Your task to perform on an android device: open app "ColorNote Notepad Notes" (install if not already installed) and go to login screen Image 0: 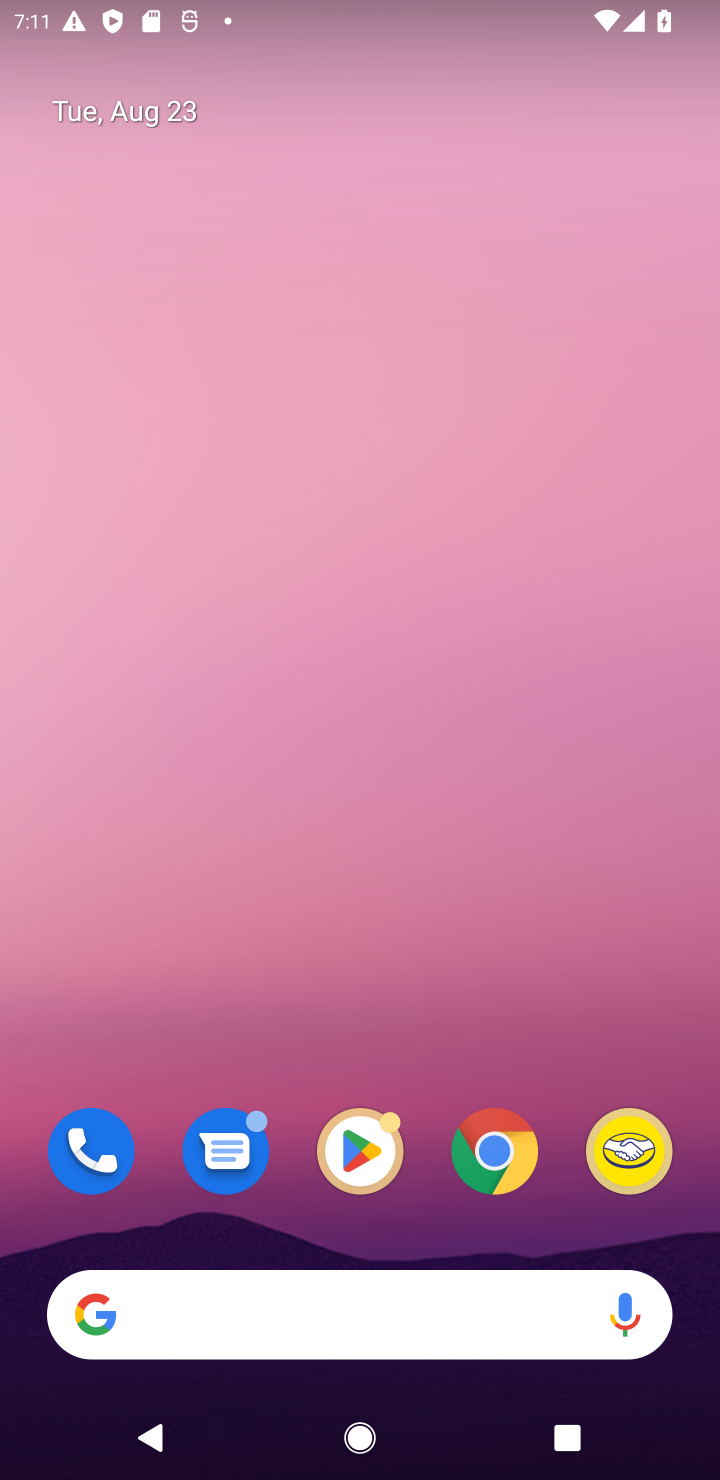
Step 0: click (349, 1144)
Your task to perform on an android device: open app "ColorNote Notepad Notes" (install if not already installed) and go to login screen Image 1: 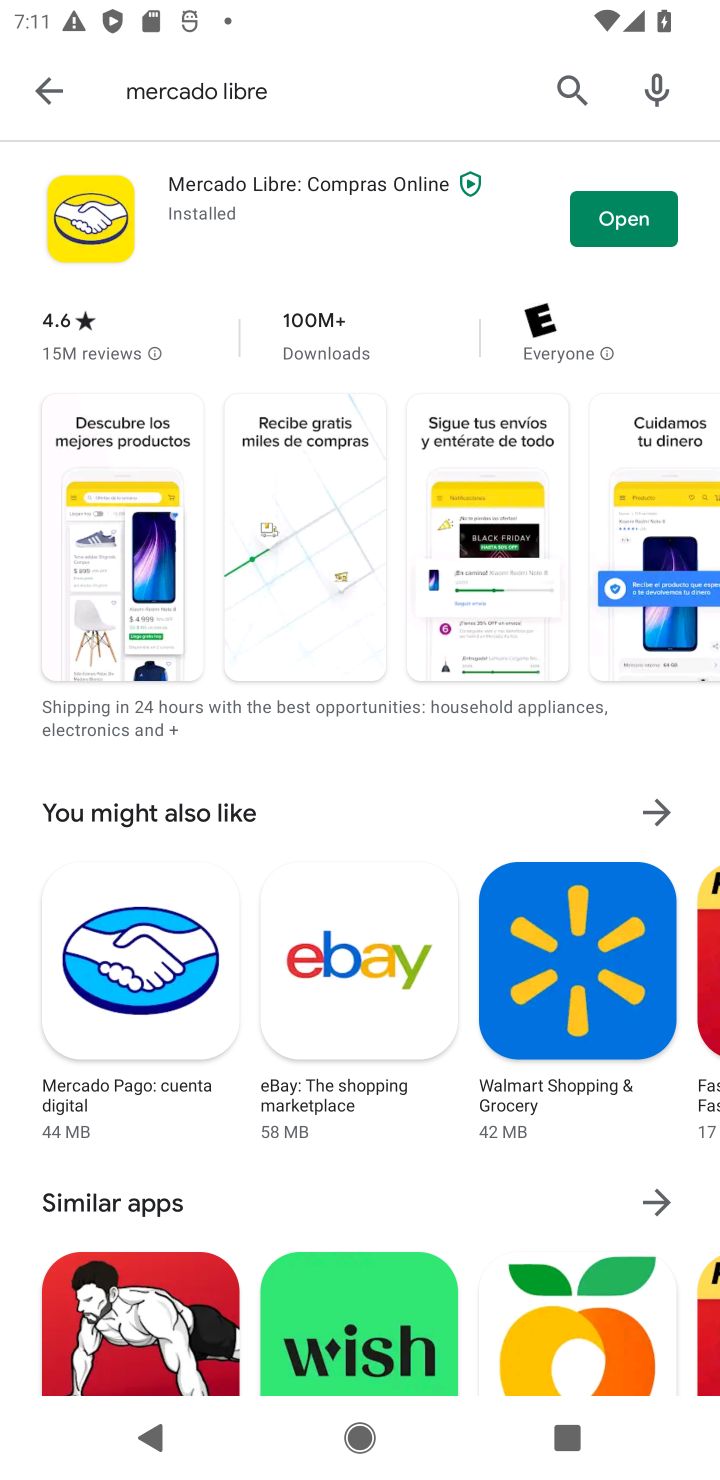
Step 1: click (575, 85)
Your task to perform on an android device: open app "ColorNote Notepad Notes" (install if not already installed) and go to login screen Image 2: 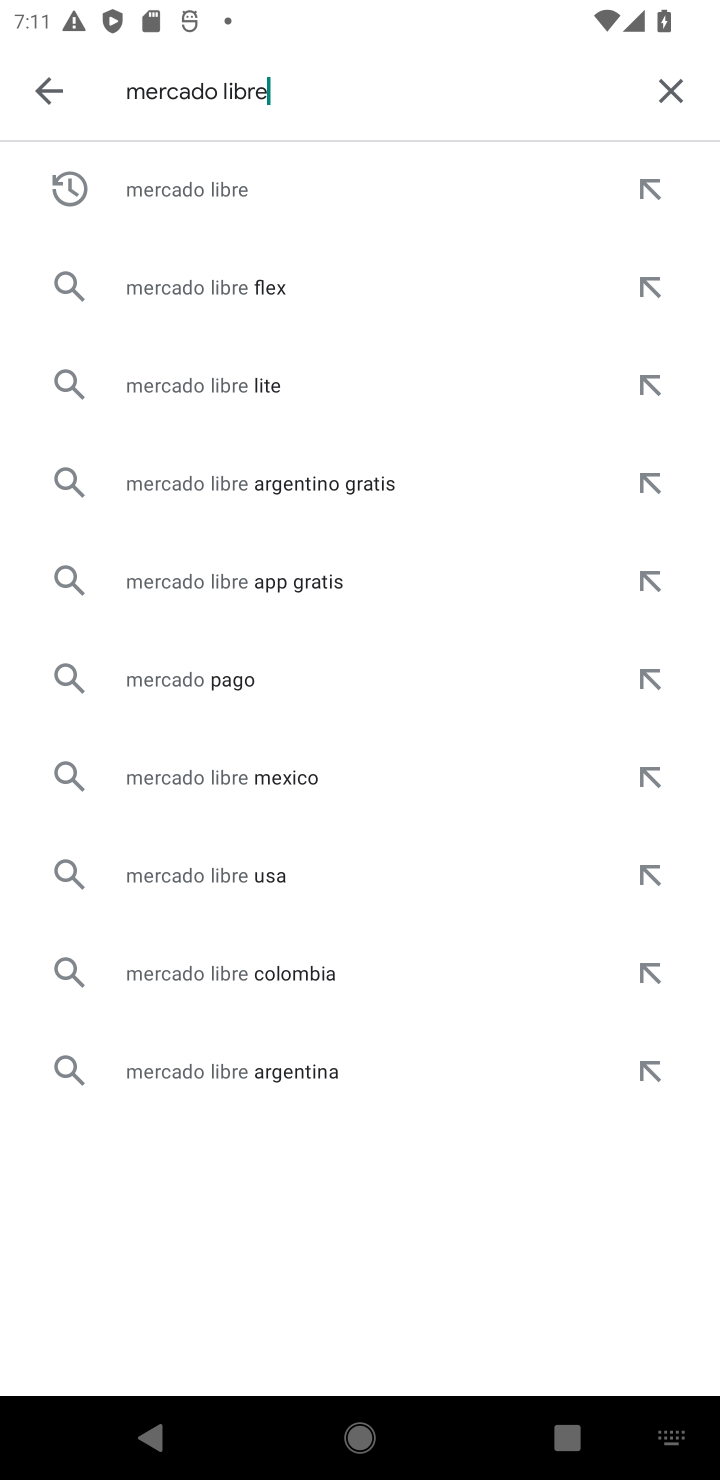
Step 2: click (661, 89)
Your task to perform on an android device: open app "ColorNote Notepad Notes" (install if not already installed) and go to login screen Image 3: 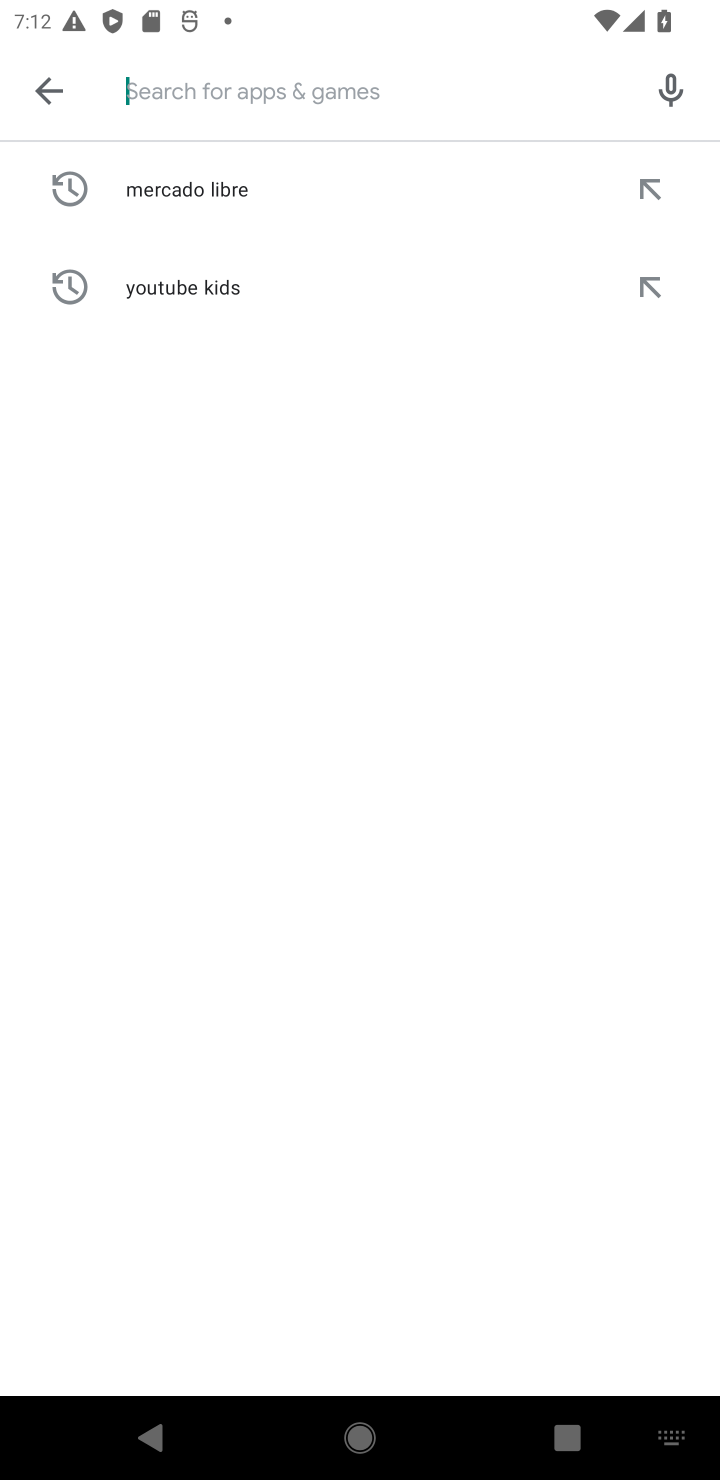
Step 3: type "ColorNote Notepad Notes"
Your task to perform on an android device: open app "ColorNote Notepad Notes" (install if not already installed) and go to login screen Image 4: 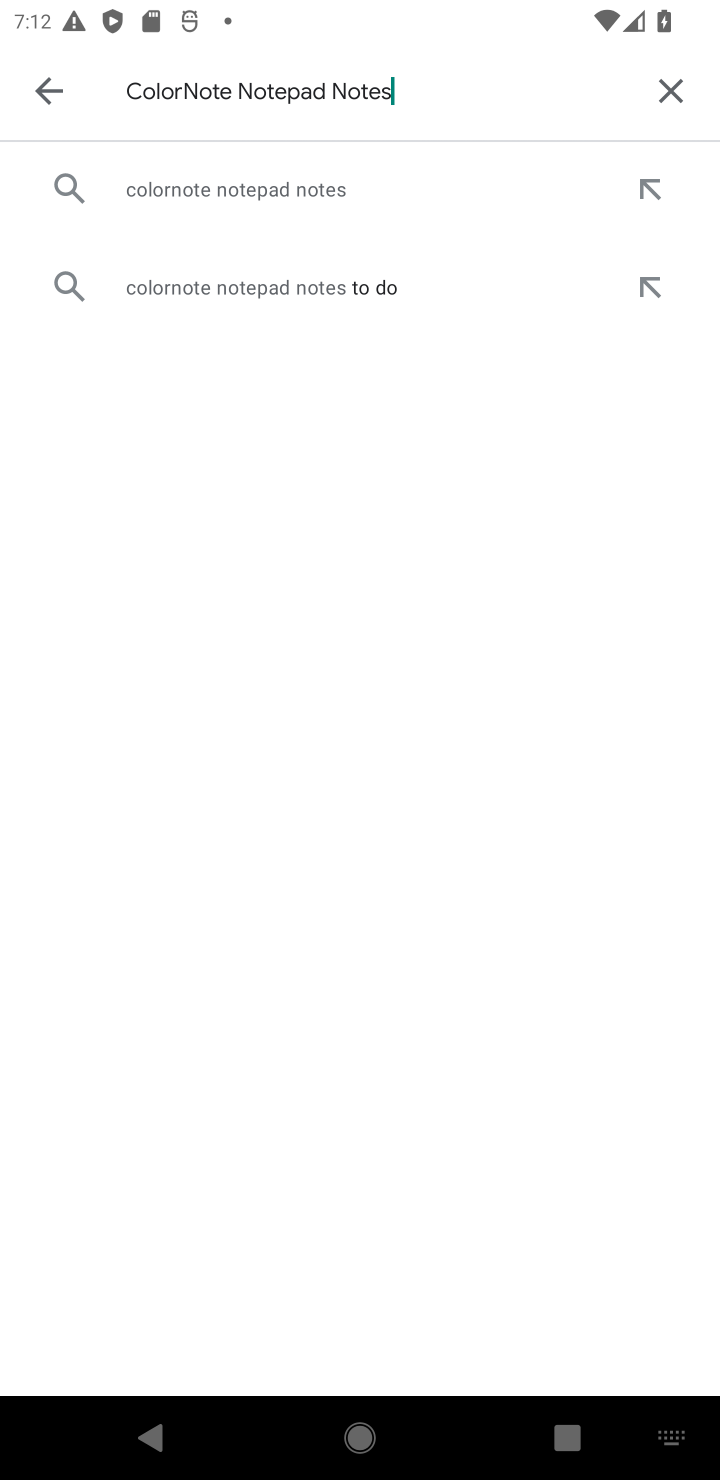
Step 4: click (232, 192)
Your task to perform on an android device: open app "ColorNote Notepad Notes" (install if not already installed) and go to login screen Image 5: 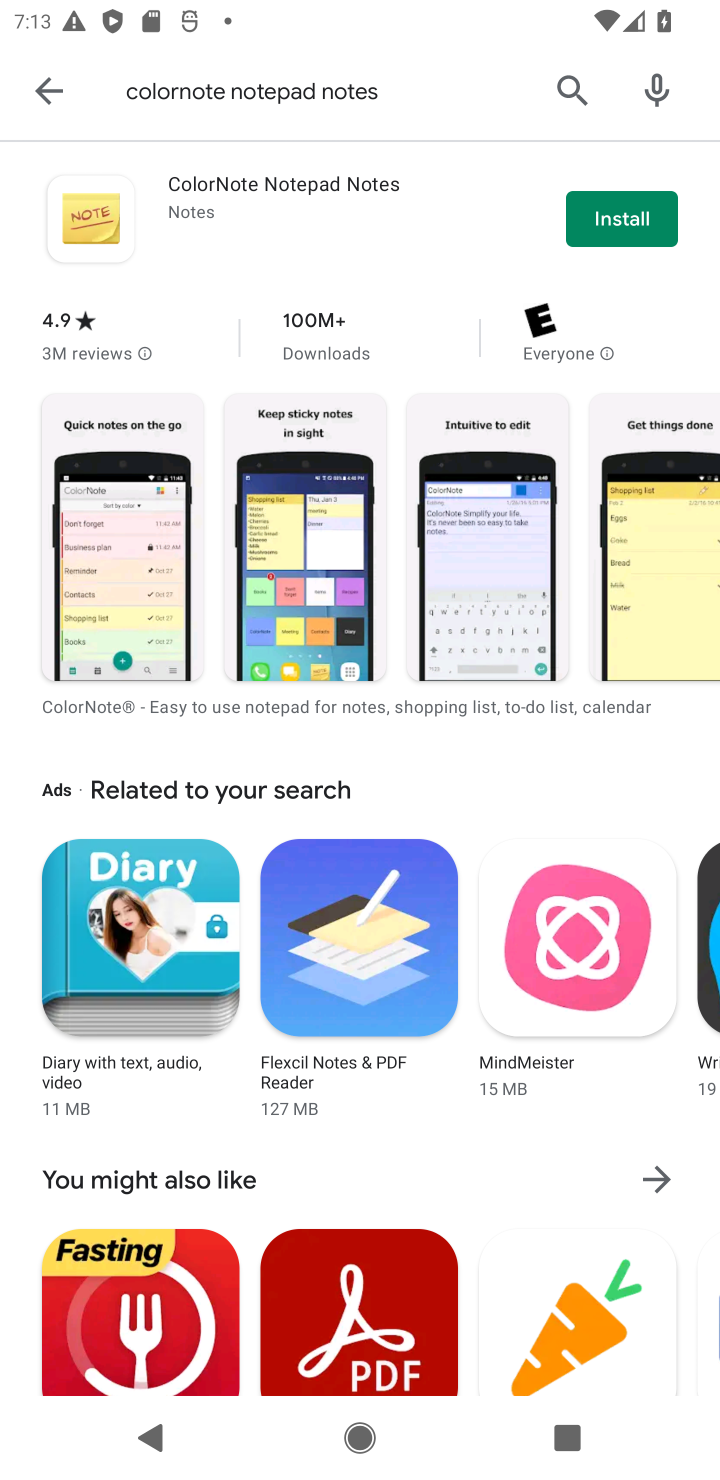
Step 5: click (626, 221)
Your task to perform on an android device: open app "ColorNote Notepad Notes" (install if not already installed) and go to login screen Image 6: 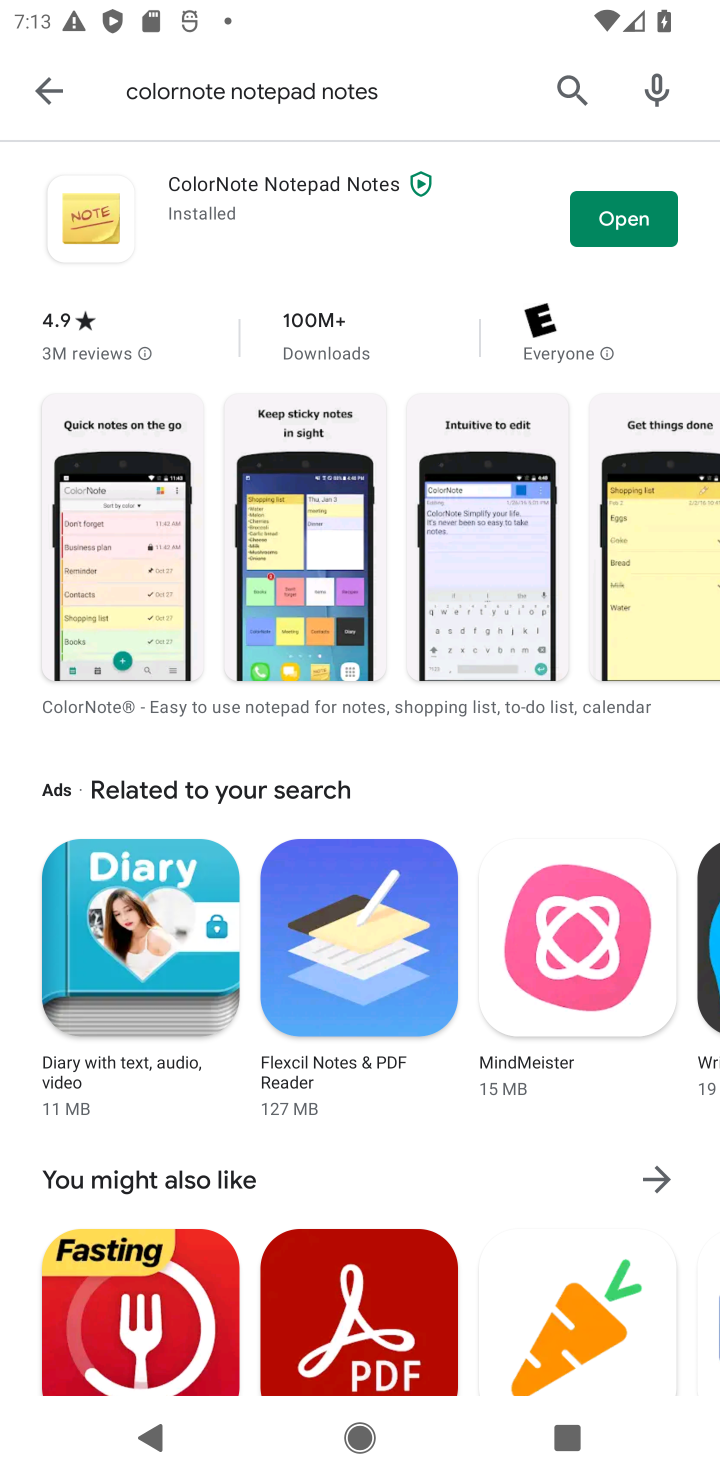
Step 6: click (625, 222)
Your task to perform on an android device: open app "ColorNote Notepad Notes" (install if not already installed) and go to login screen Image 7: 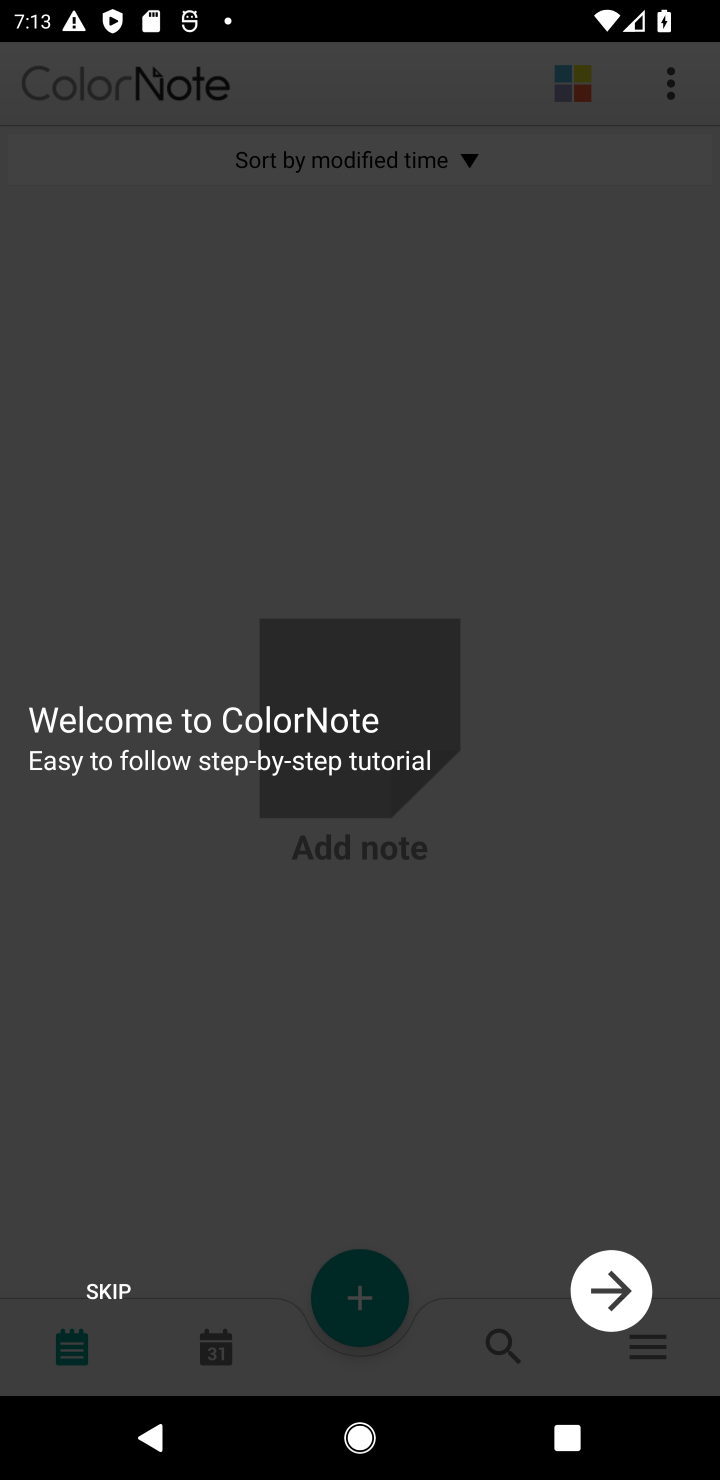
Step 7: click (91, 1297)
Your task to perform on an android device: open app "ColorNote Notepad Notes" (install if not already installed) and go to login screen Image 8: 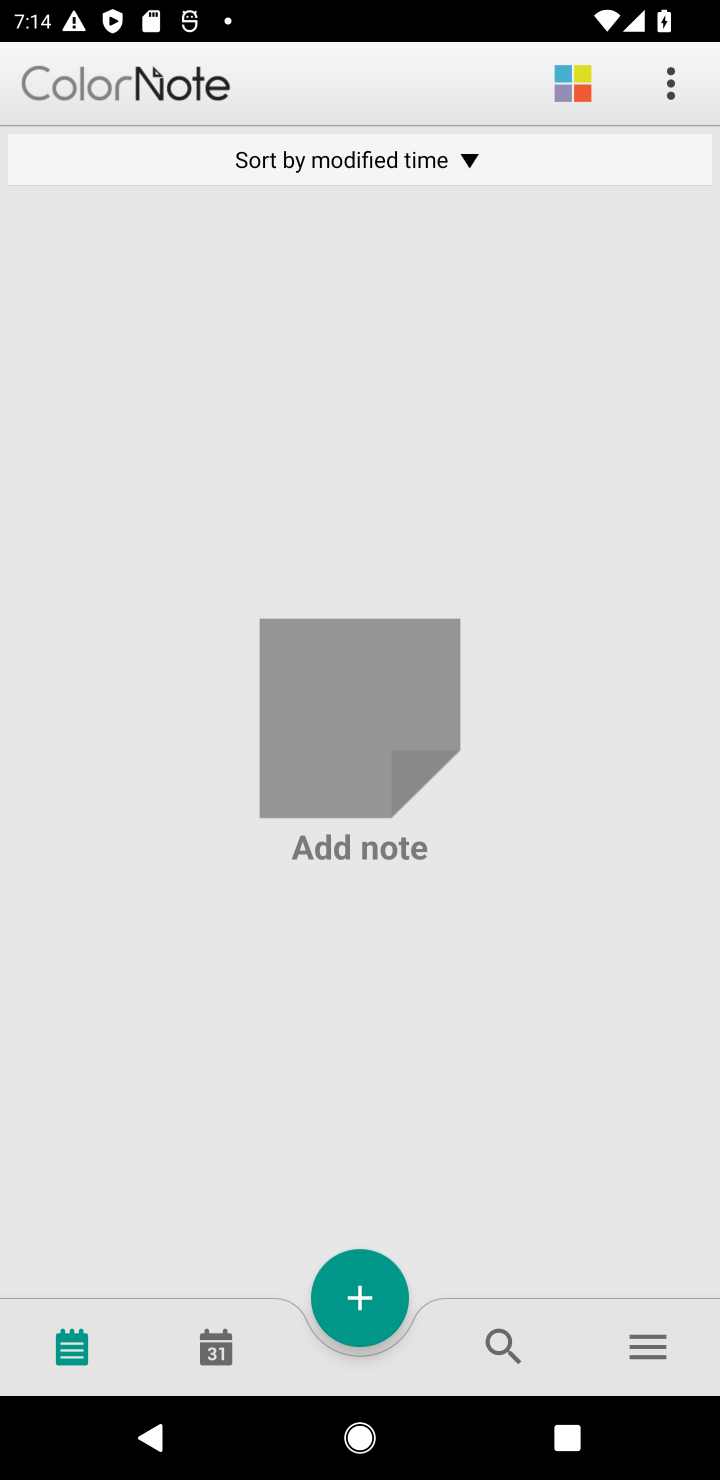
Step 8: task complete